Your task to perform on an android device: empty trash in the gmail app Image 0: 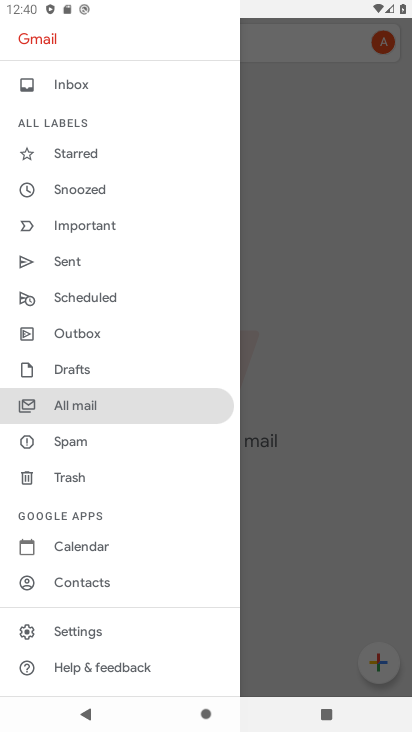
Step 0: click (67, 474)
Your task to perform on an android device: empty trash in the gmail app Image 1: 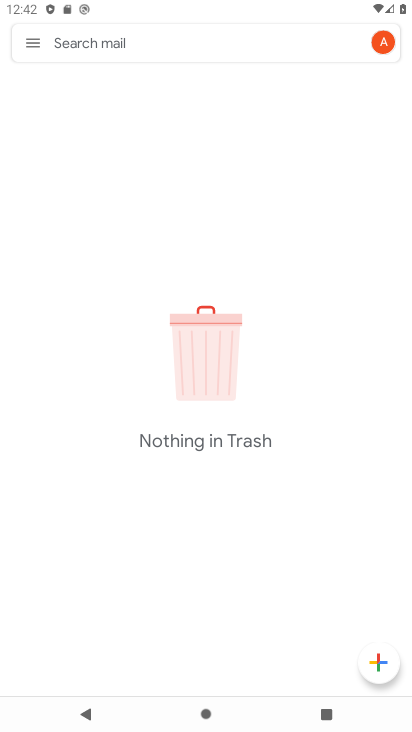
Step 1: task complete